Your task to perform on an android device: Go to Yahoo.com Image 0: 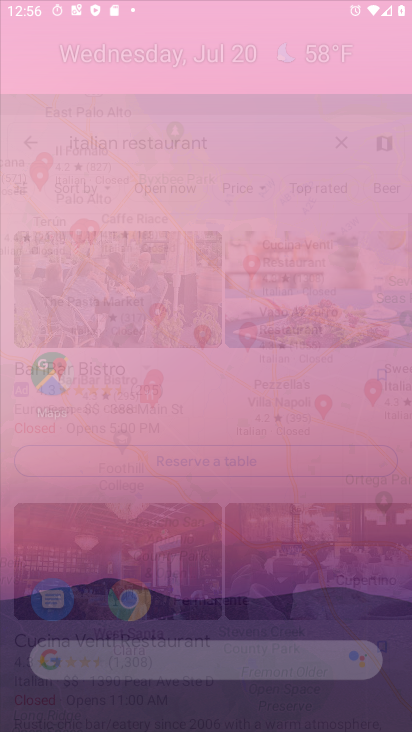
Step 0: press home button
Your task to perform on an android device: Go to Yahoo.com Image 1: 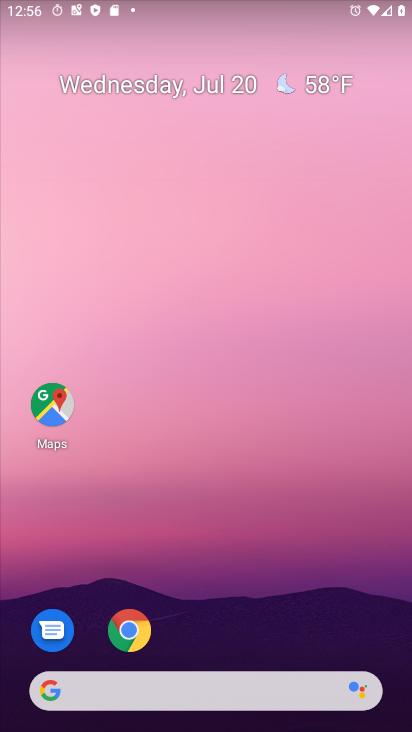
Step 1: click (124, 628)
Your task to perform on an android device: Go to Yahoo.com Image 2: 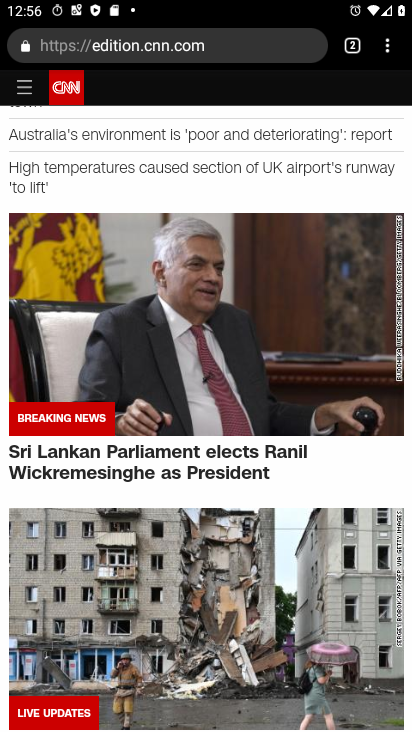
Step 2: drag from (387, 47) to (324, 91)
Your task to perform on an android device: Go to Yahoo.com Image 3: 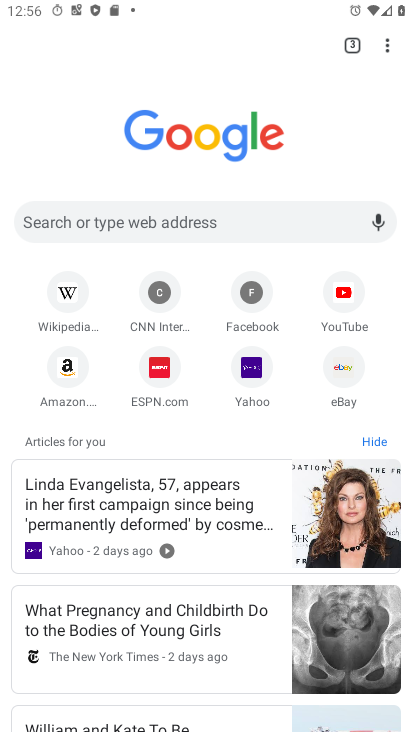
Step 3: click (247, 379)
Your task to perform on an android device: Go to Yahoo.com Image 4: 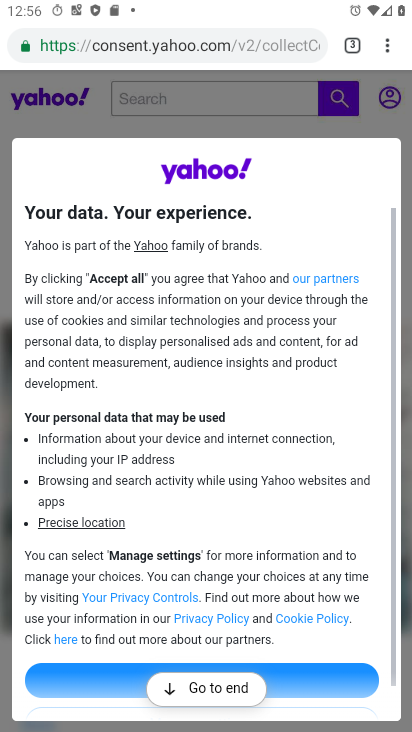
Step 4: click (201, 674)
Your task to perform on an android device: Go to Yahoo.com Image 5: 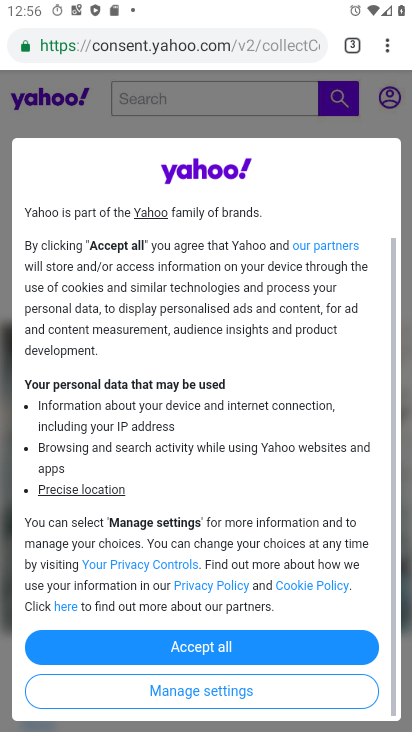
Step 5: click (233, 643)
Your task to perform on an android device: Go to Yahoo.com Image 6: 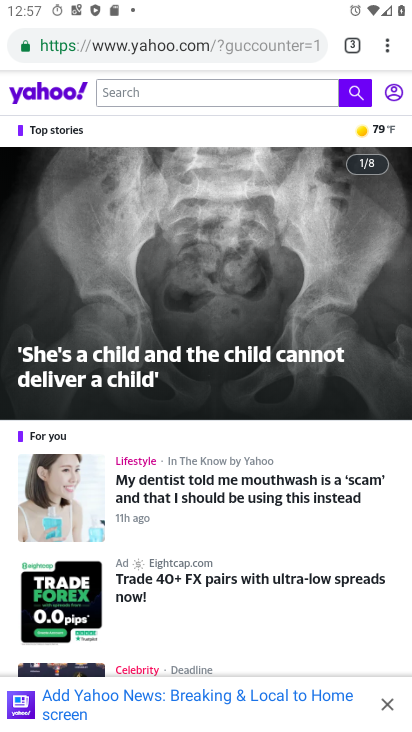
Step 6: task complete